Your task to perform on an android device: open chrome privacy settings Image 0: 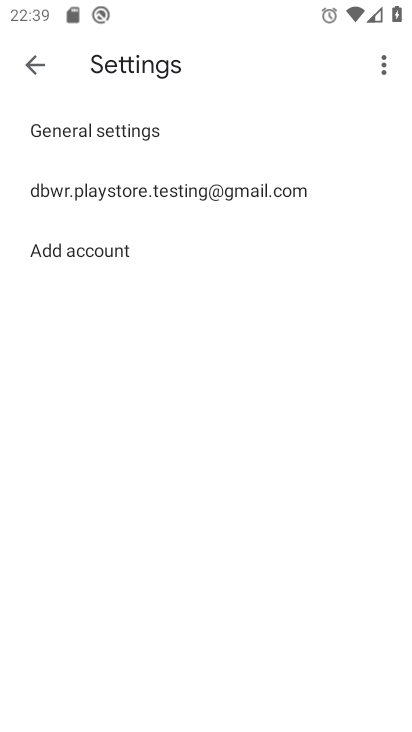
Step 0: press home button
Your task to perform on an android device: open chrome privacy settings Image 1: 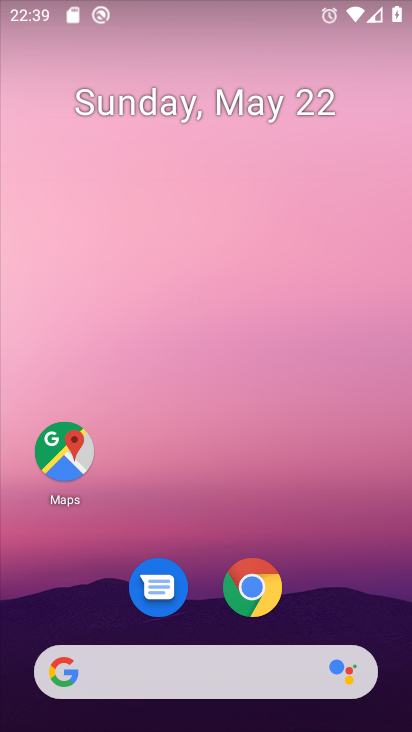
Step 1: click (261, 585)
Your task to perform on an android device: open chrome privacy settings Image 2: 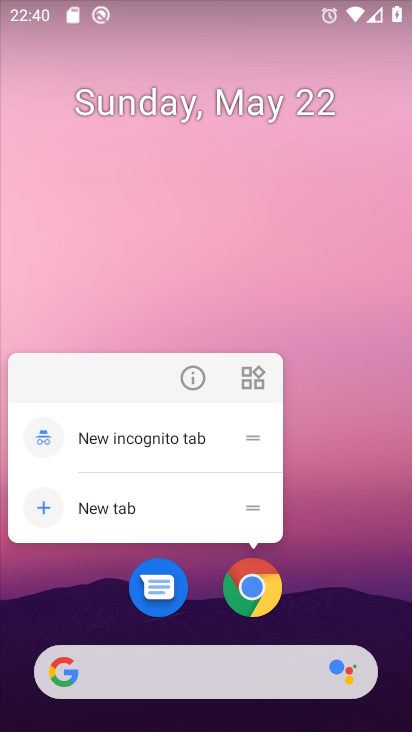
Step 2: click (262, 583)
Your task to perform on an android device: open chrome privacy settings Image 3: 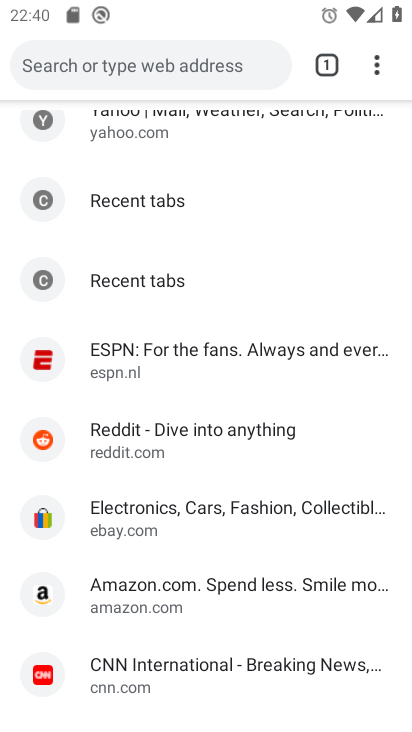
Step 3: click (382, 63)
Your task to perform on an android device: open chrome privacy settings Image 4: 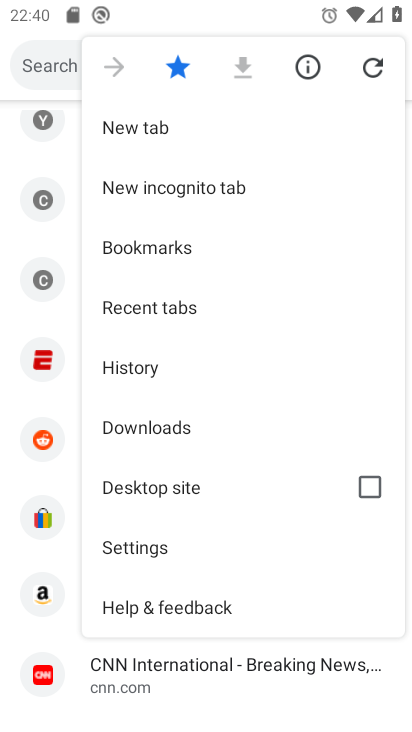
Step 4: click (163, 549)
Your task to perform on an android device: open chrome privacy settings Image 5: 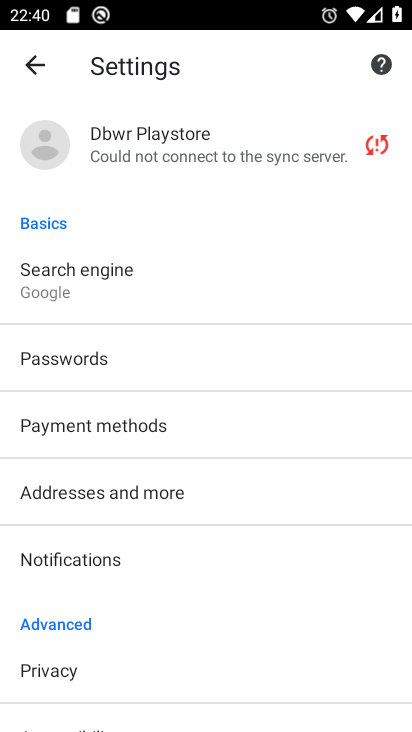
Step 5: click (83, 670)
Your task to perform on an android device: open chrome privacy settings Image 6: 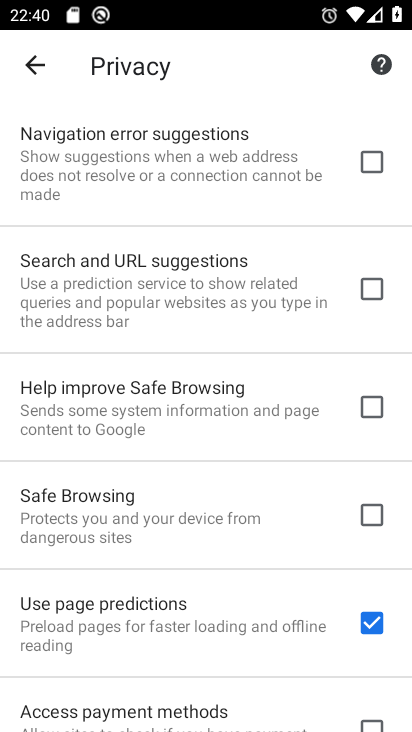
Step 6: task complete